Your task to perform on an android device: open the mobile data screen to see how much data has been used Image 0: 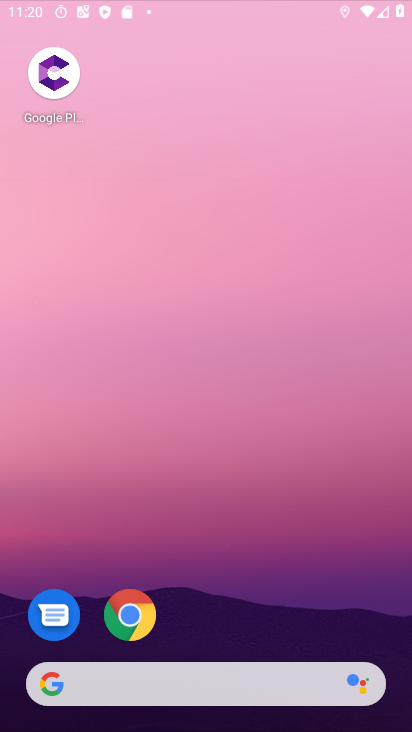
Step 0: press home button
Your task to perform on an android device: open the mobile data screen to see how much data has been used Image 1: 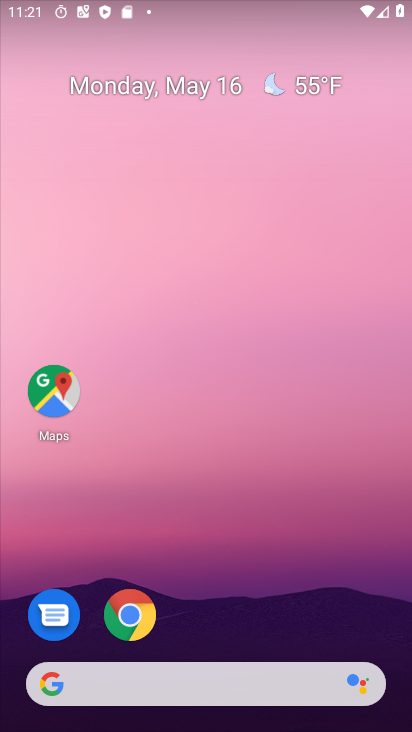
Step 1: drag from (336, 11) to (398, 702)
Your task to perform on an android device: open the mobile data screen to see how much data has been used Image 2: 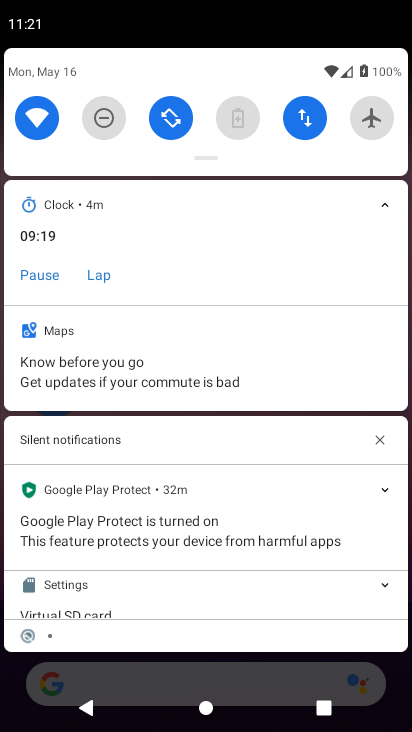
Step 2: drag from (207, 147) to (187, 725)
Your task to perform on an android device: open the mobile data screen to see how much data has been used Image 3: 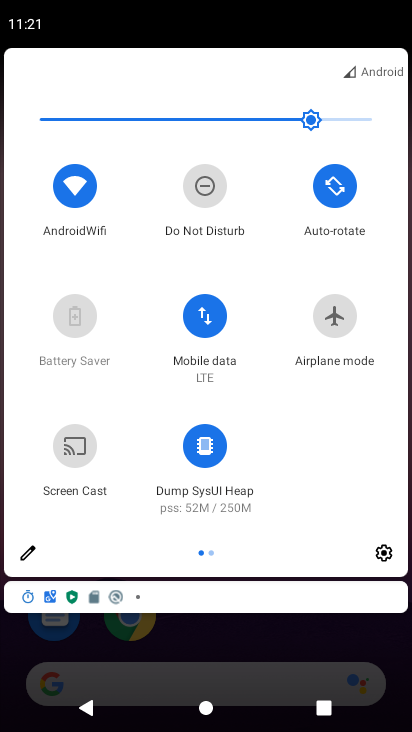
Step 3: click (204, 310)
Your task to perform on an android device: open the mobile data screen to see how much data has been used Image 4: 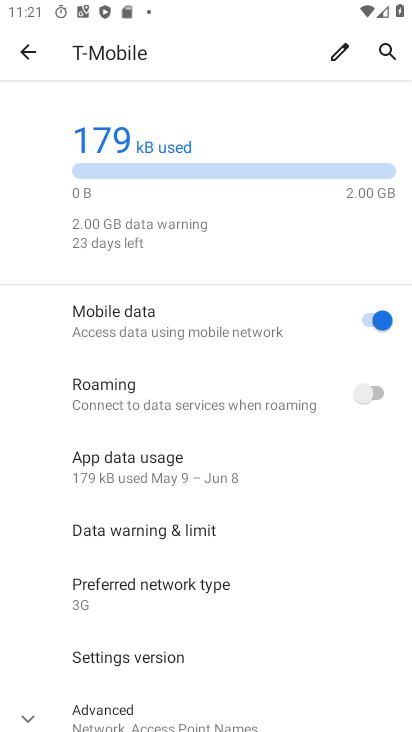
Step 4: task complete